Your task to perform on an android device: Open the Play Movies app and select the watchlist tab. Image 0: 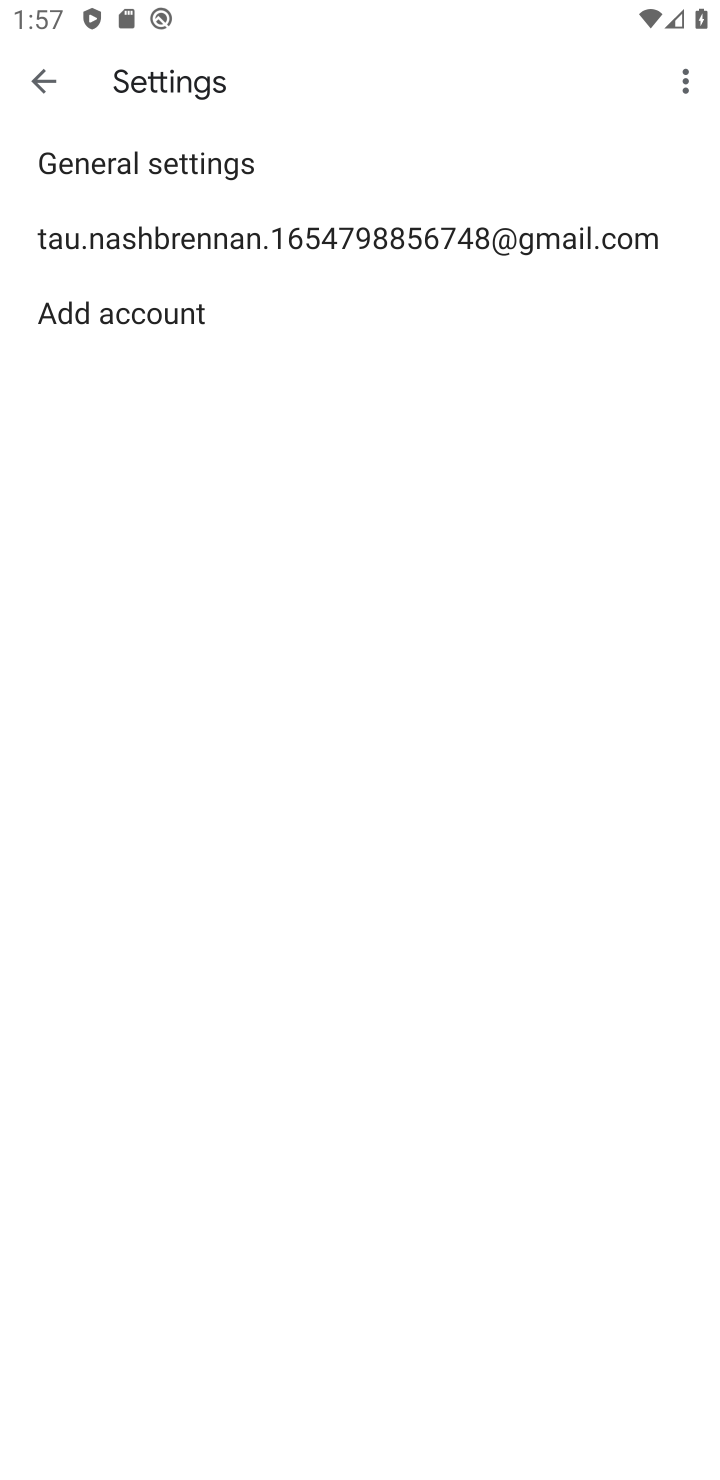
Step 0: press home button
Your task to perform on an android device: Open the Play Movies app and select the watchlist tab. Image 1: 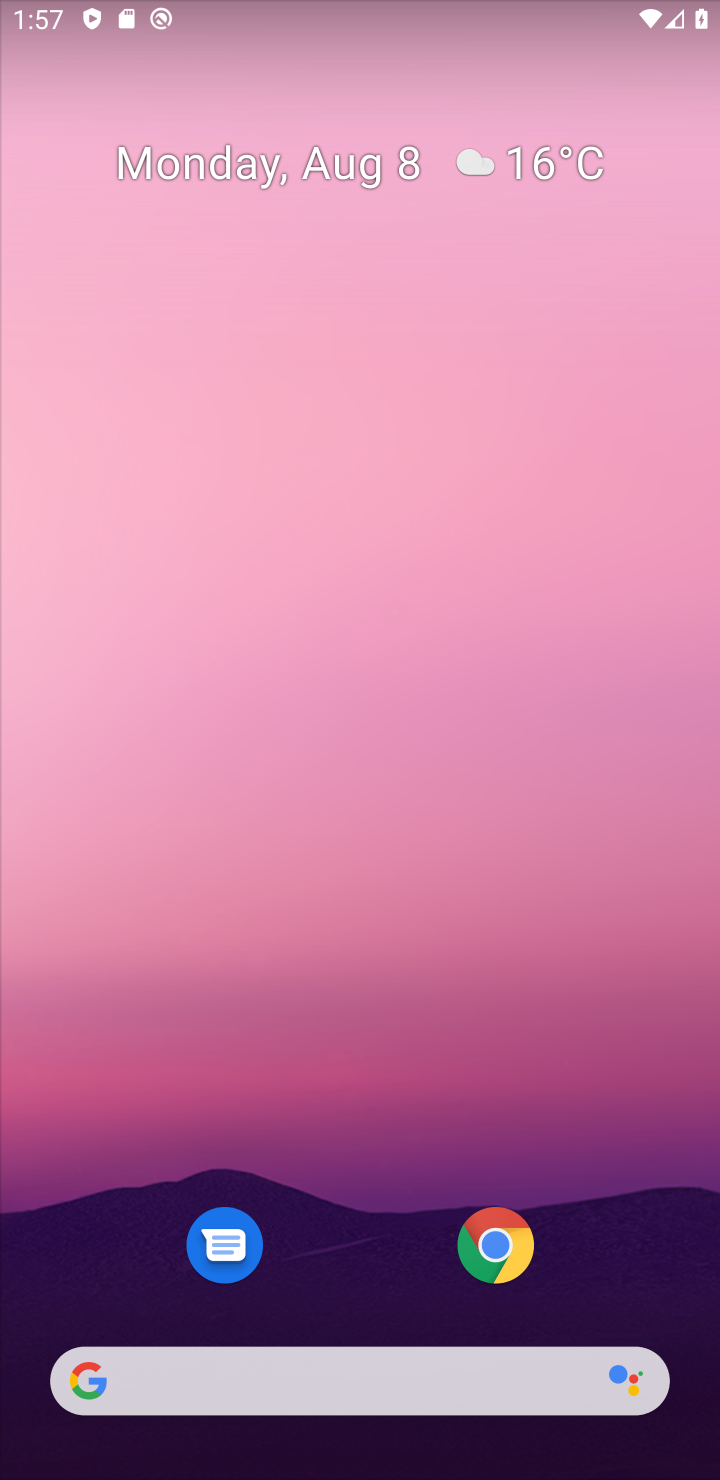
Step 1: drag from (327, 841) to (245, 14)
Your task to perform on an android device: Open the Play Movies app and select the watchlist tab. Image 2: 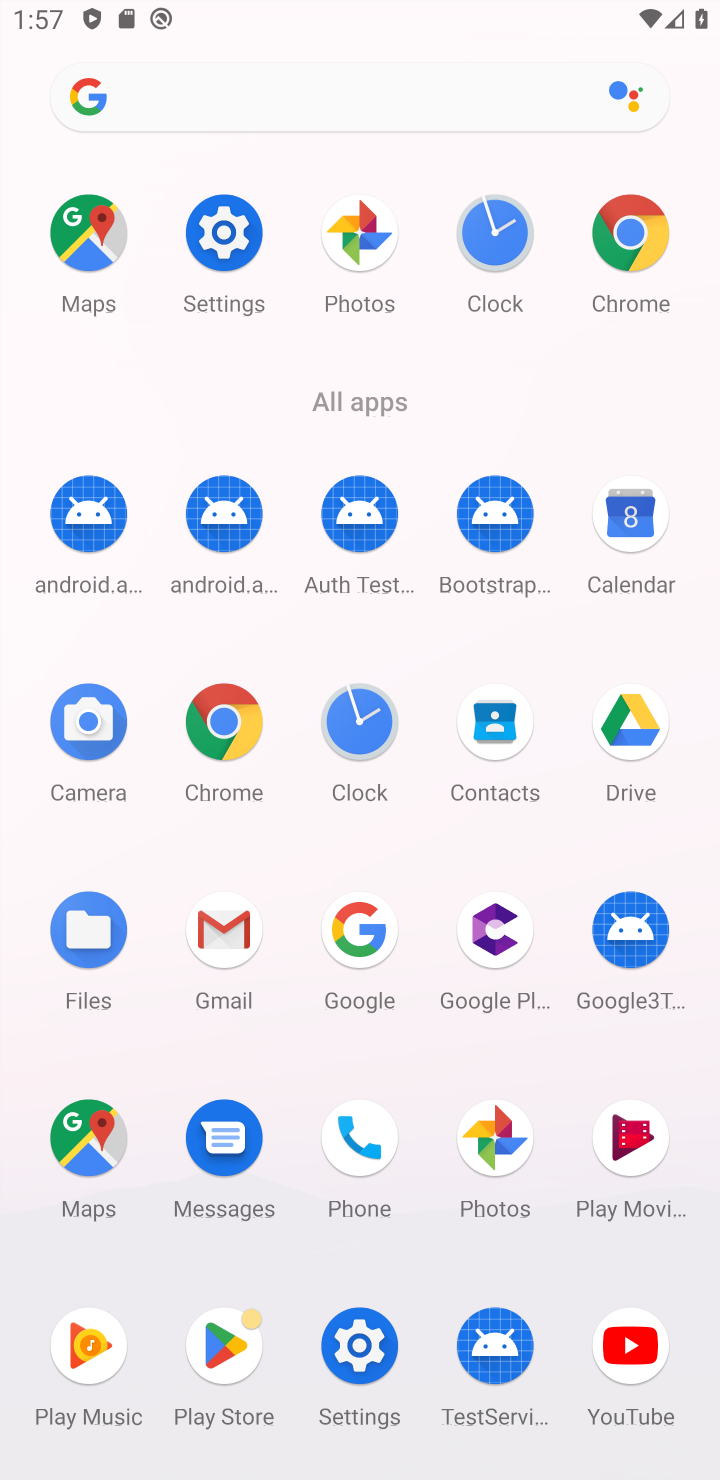
Step 2: click (630, 1133)
Your task to perform on an android device: Open the Play Movies app and select the watchlist tab. Image 3: 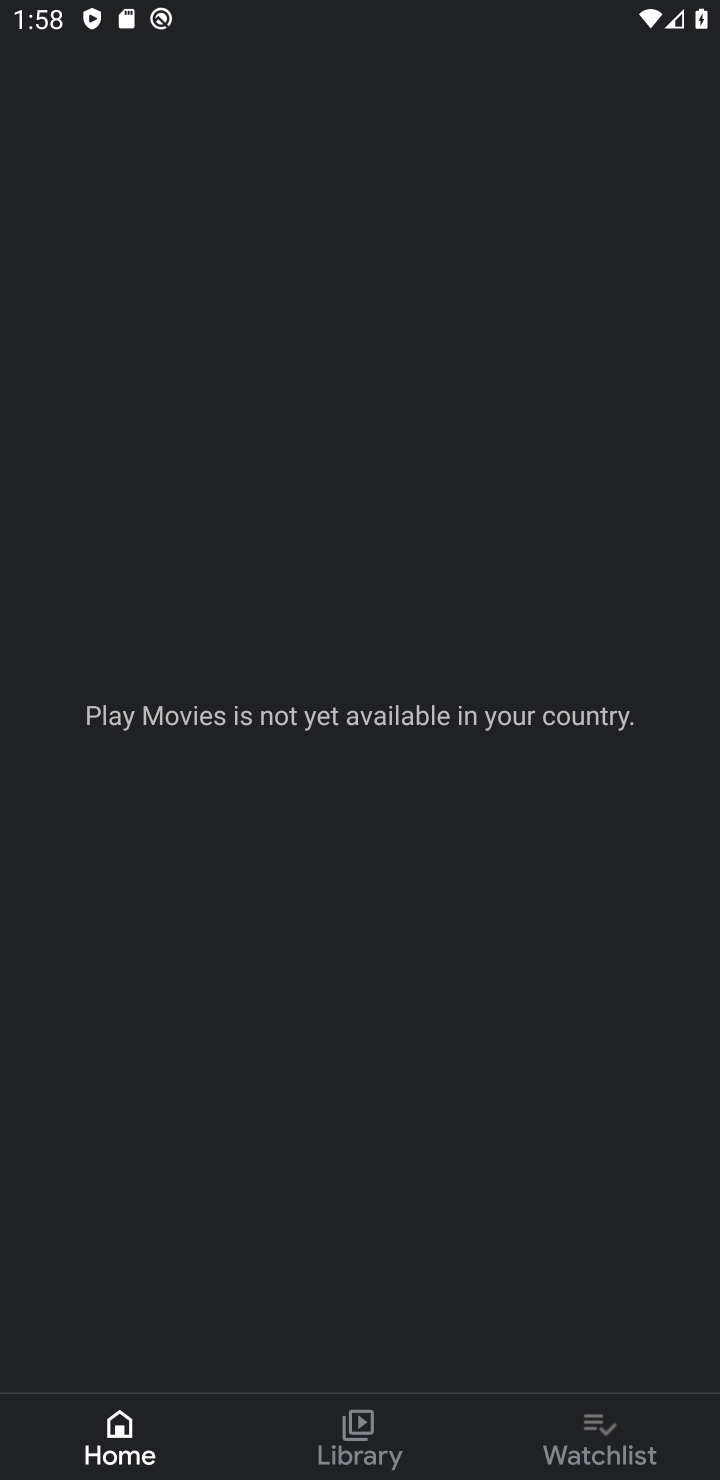
Step 3: click (594, 1424)
Your task to perform on an android device: Open the Play Movies app and select the watchlist tab. Image 4: 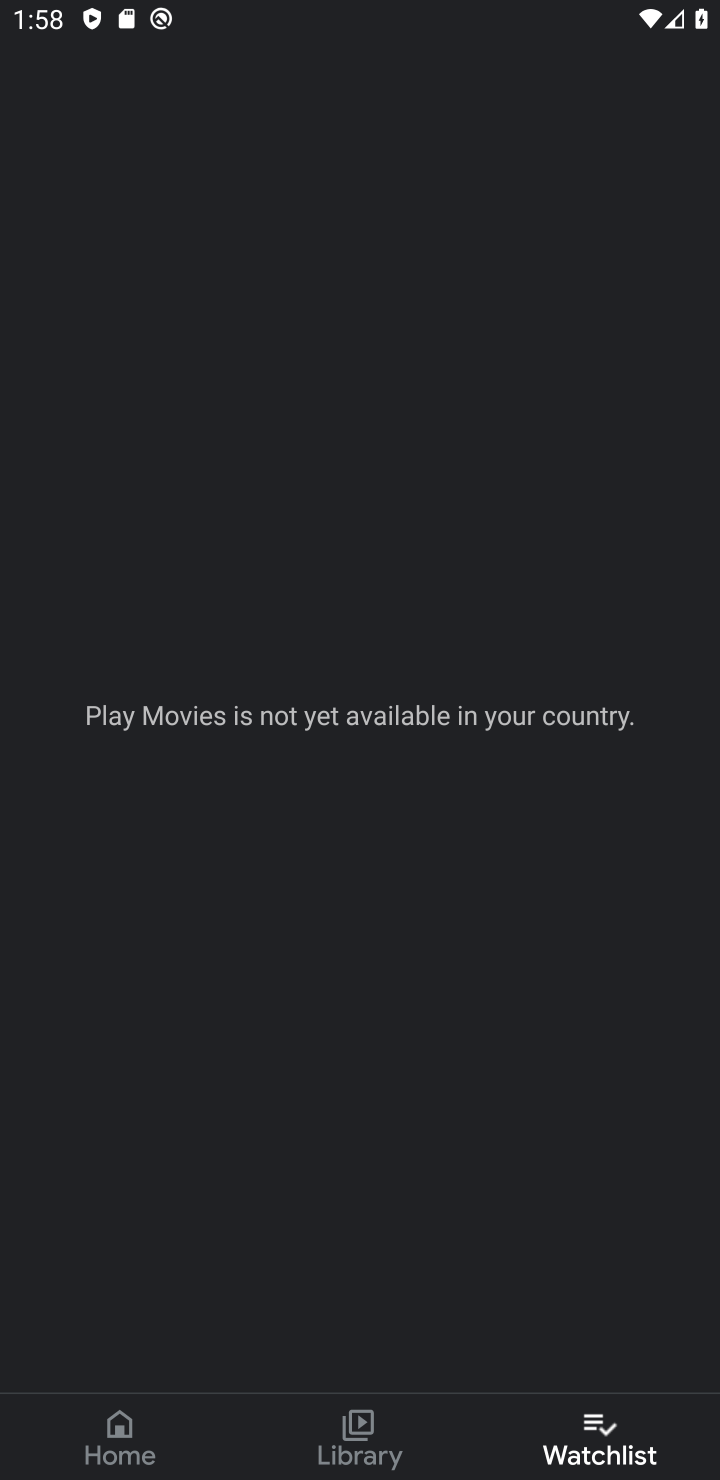
Step 4: task complete